Your task to perform on an android device: turn on airplane mode Image 0: 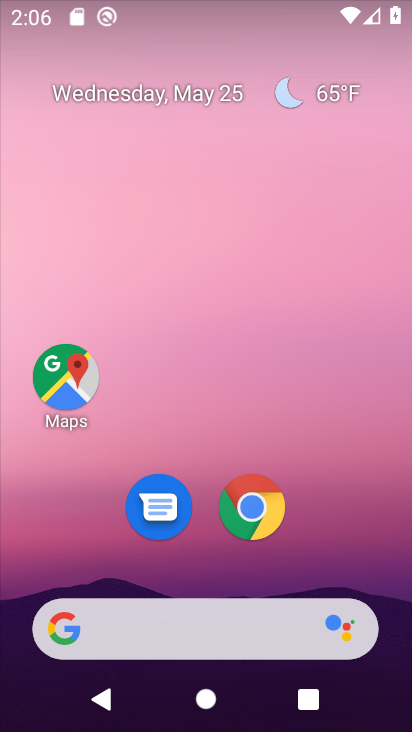
Step 0: drag from (137, 472) to (256, 79)
Your task to perform on an android device: turn on airplane mode Image 1: 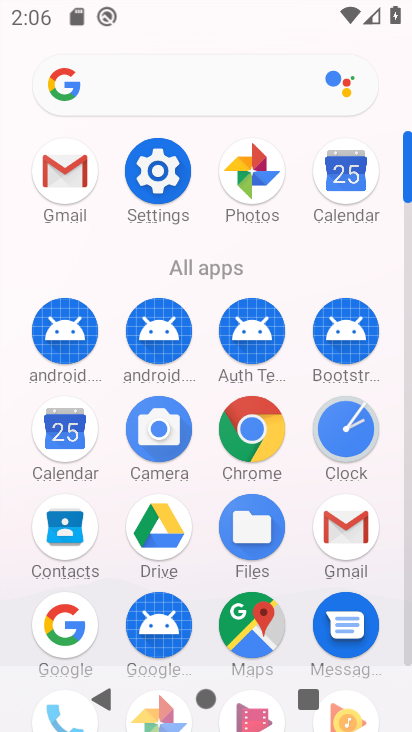
Step 1: drag from (144, 623) to (208, 357)
Your task to perform on an android device: turn on airplane mode Image 2: 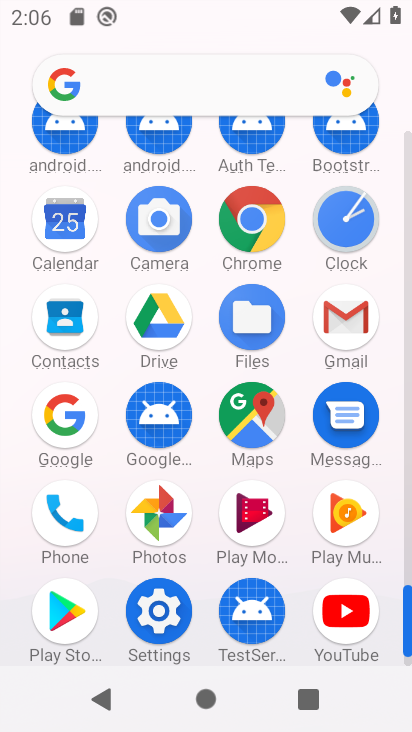
Step 2: click (149, 609)
Your task to perform on an android device: turn on airplane mode Image 3: 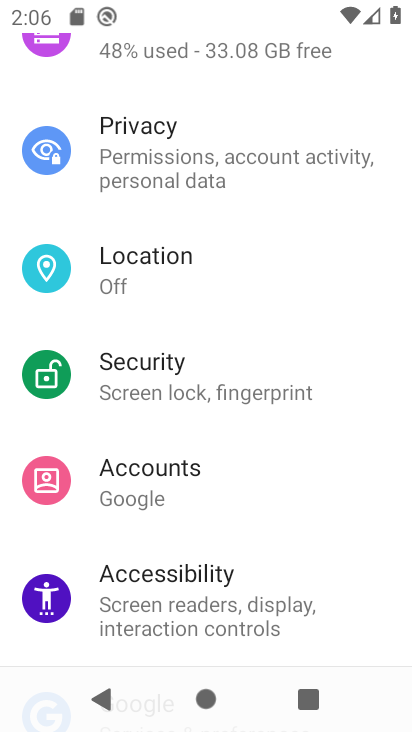
Step 3: drag from (189, 130) to (149, 642)
Your task to perform on an android device: turn on airplane mode Image 4: 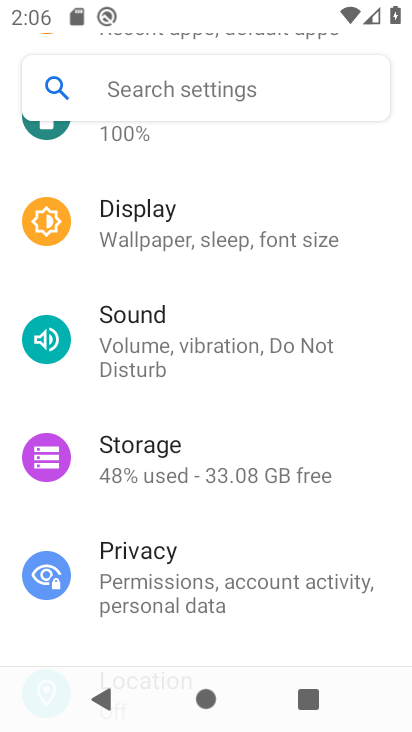
Step 4: drag from (225, 193) to (180, 675)
Your task to perform on an android device: turn on airplane mode Image 5: 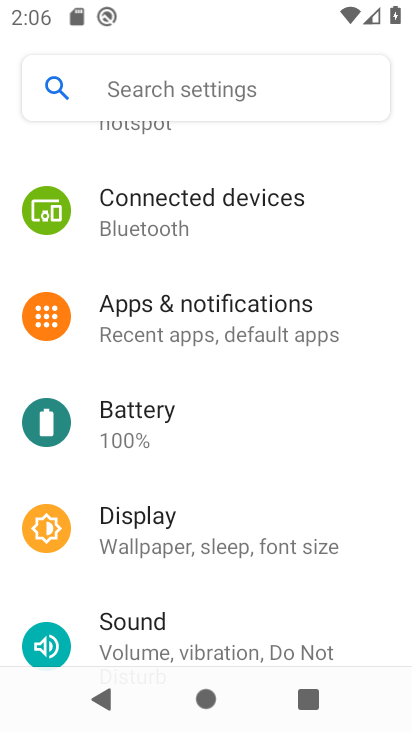
Step 5: drag from (289, 217) to (254, 585)
Your task to perform on an android device: turn on airplane mode Image 6: 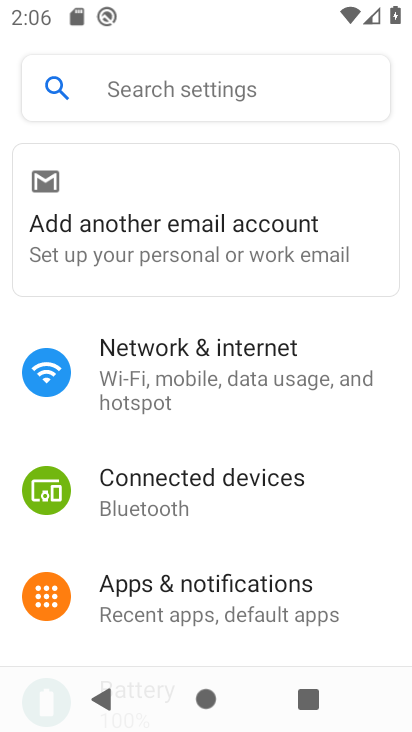
Step 6: click (211, 370)
Your task to perform on an android device: turn on airplane mode Image 7: 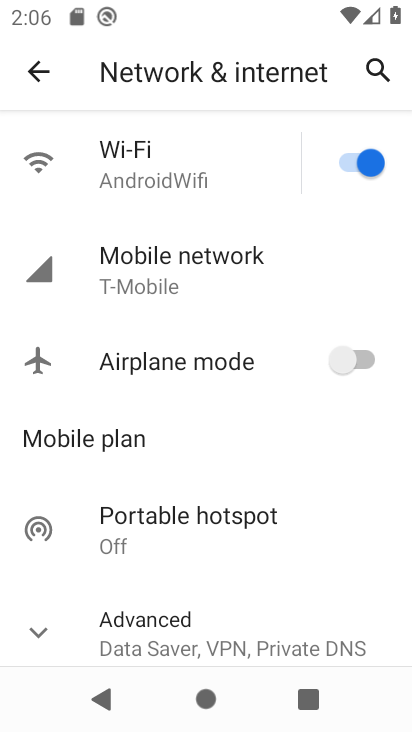
Step 7: click (361, 361)
Your task to perform on an android device: turn on airplane mode Image 8: 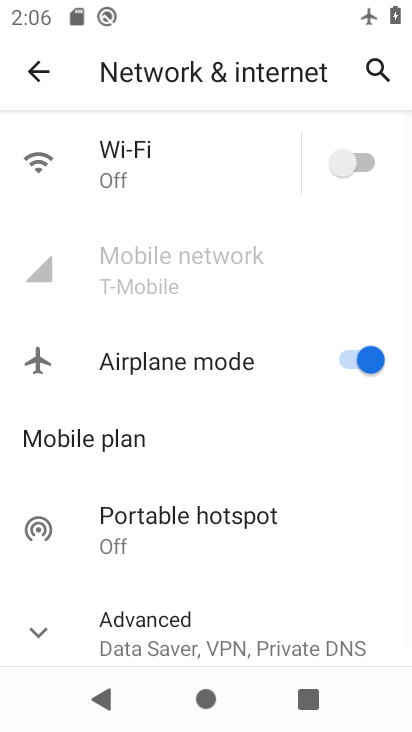
Step 8: task complete